Your task to perform on an android device: turn off sleep mode Image 0: 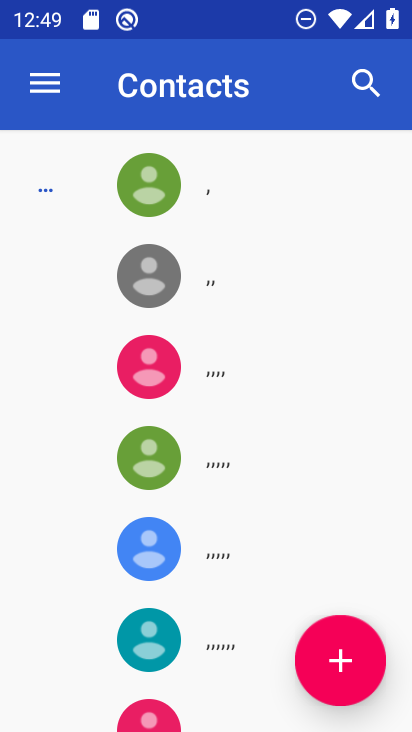
Step 0: press home button
Your task to perform on an android device: turn off sleep mode Image 1: 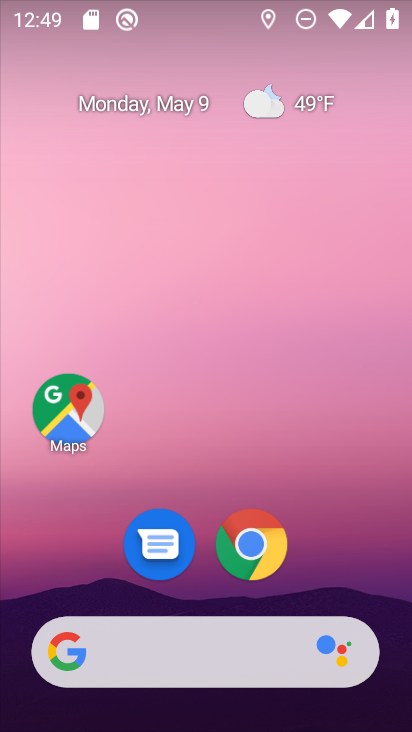
Step 1: drag from (323, 492) to (311, 22)
Your task to perform on an android device: turn off sleep mode Image 2: 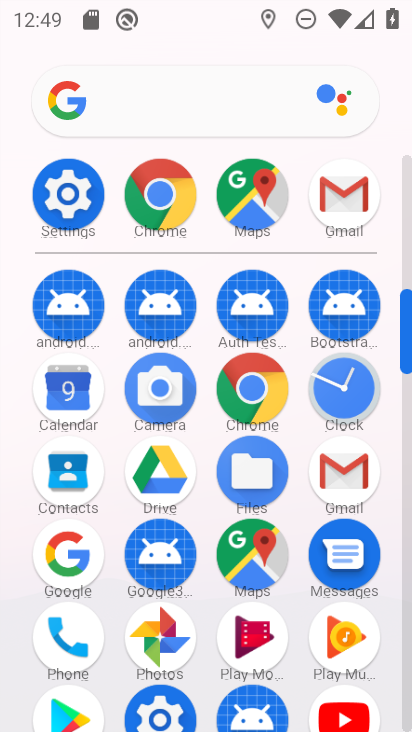
Step 2: click (71, 184)
Your task to perform on an android device: turn off sleep mode Image 3: 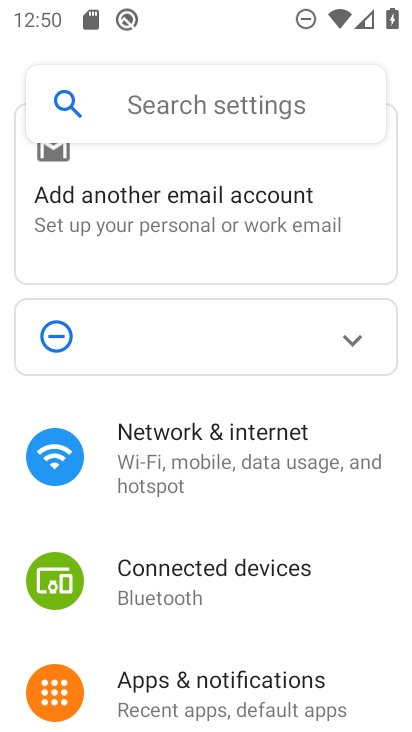
Step 3: drag from (168, 599) to (215, 208)
Your task to perform on an android device: turn off sleep mode Image 4: 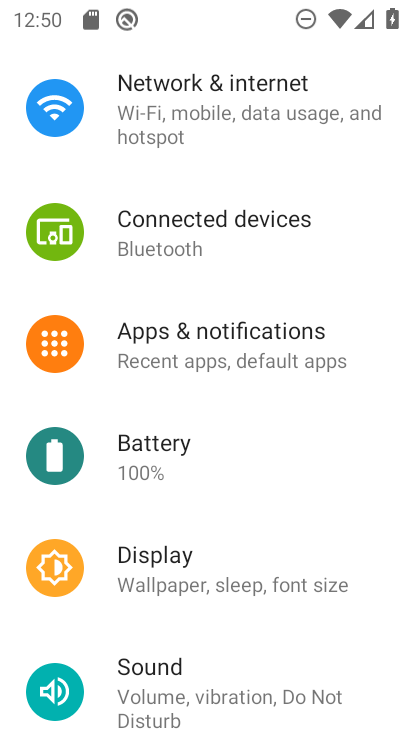
Step 4: drag from (230, 648) to (258, 227)
Your task to perform on an android device: turn off sleep mode Image 5: 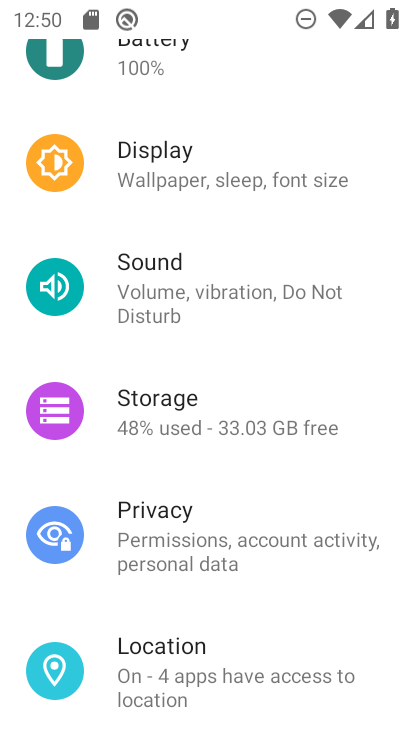
Step 5: click (199, 172)
Your task to perform on an android device: turn off sleep mode Image 6: 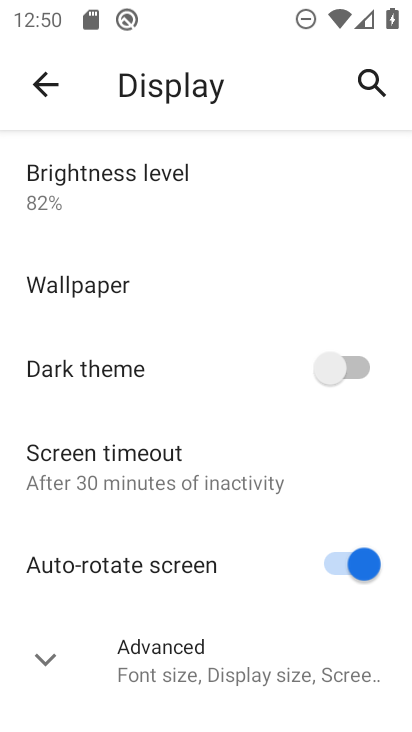
Step 6: click (84, 483)
Your task to perform on an android device: turn off sleep mode Image 7: 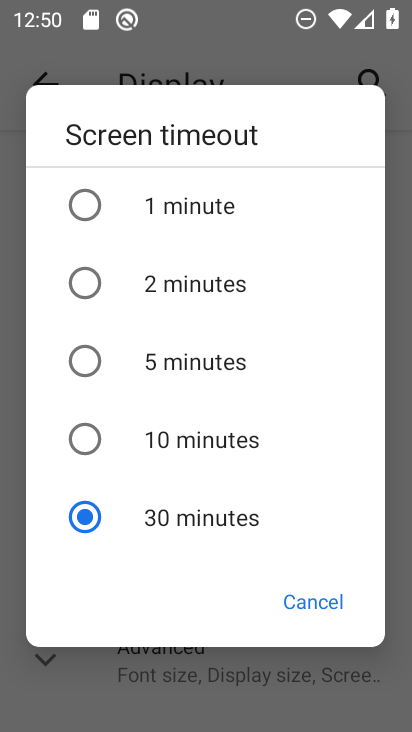
Step 7: task complete